Your task to perform on an android device: set the timer Image 0: 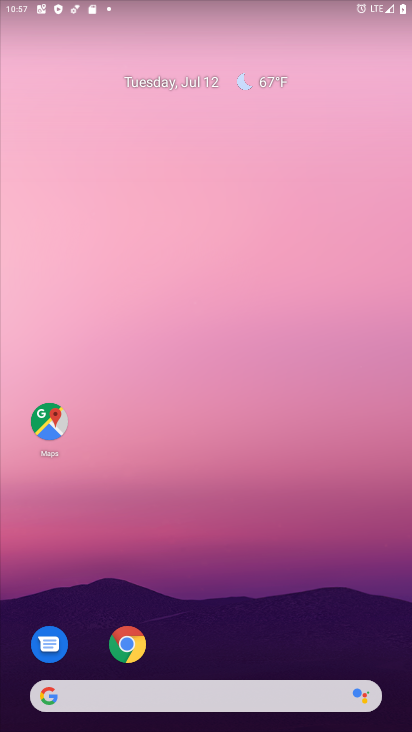
Step 0: drag from (221, 585) to (204, 235)
Your task to perform on an android device: set the timer Image 1: 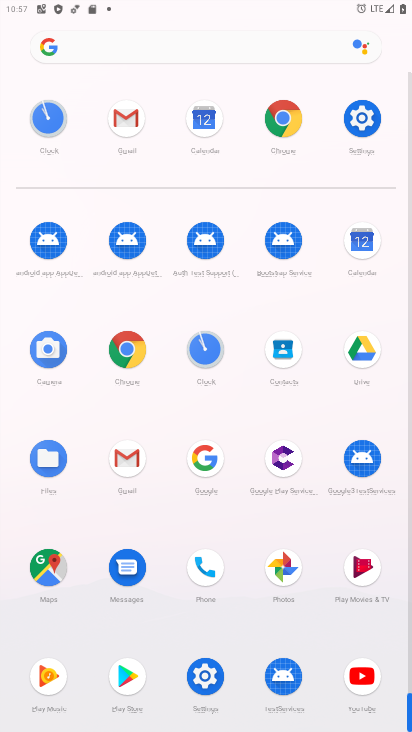
Step 1: click (208, 346)
Your task to perform on an android device: set the timer Image 2: 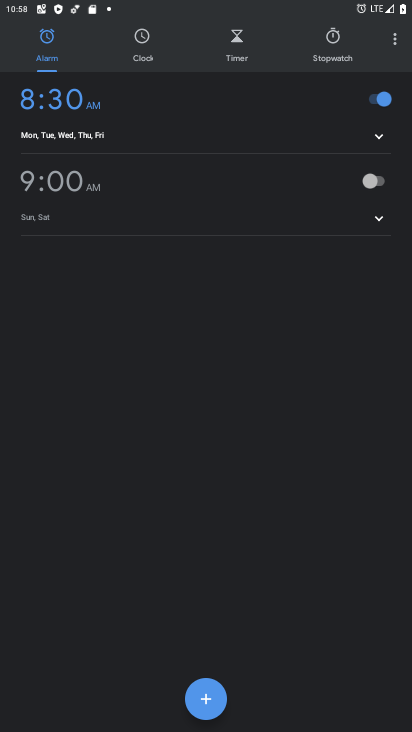
Step 2: press home button
Your task to perform on an android device: set the timer Image 3: 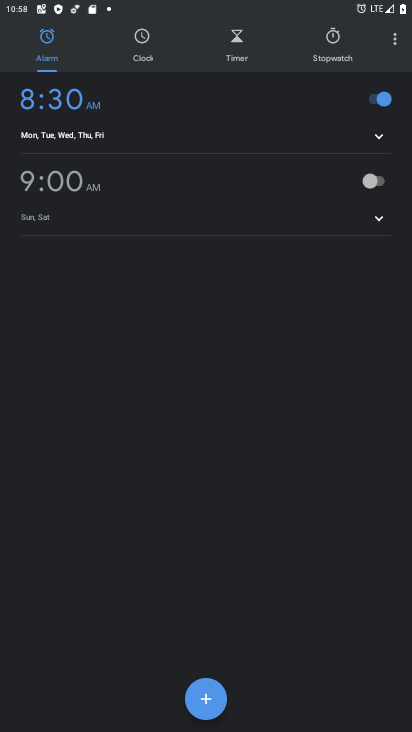
Step 3: drag from (207, 558) to (368, 41)
Your task to perform on an android device: set the timer Image 4: 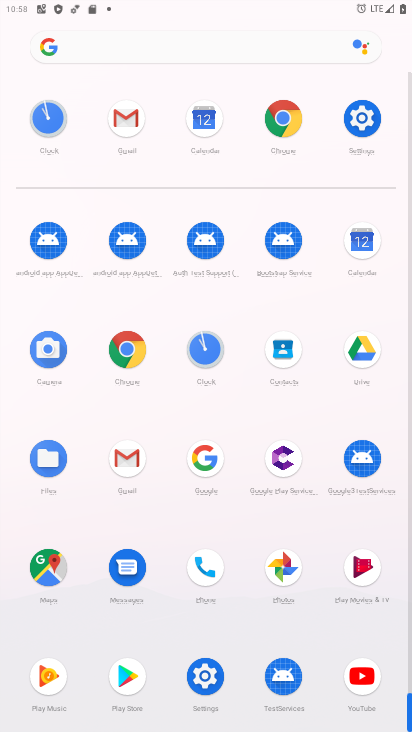
Step 4: click (203, 338)
Your task to perform on an android device: set the timer Image 5: 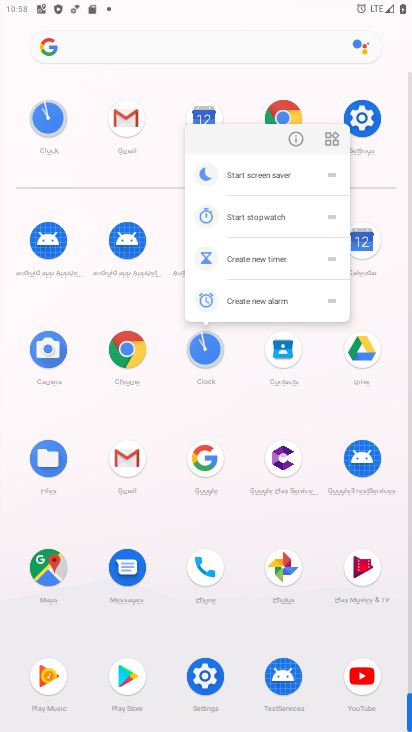
Step 5: click (290, 143)
Your task to perform on an android device: set the timer Image 6: 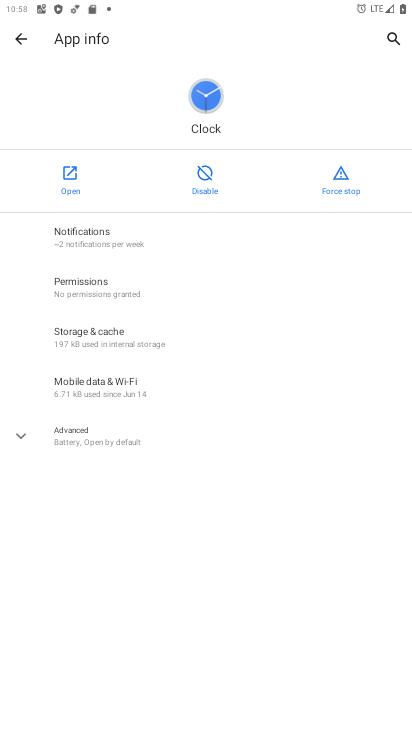
Step 6: click (74, 182)
Your task to perform on an android device: set the timer Image 7: 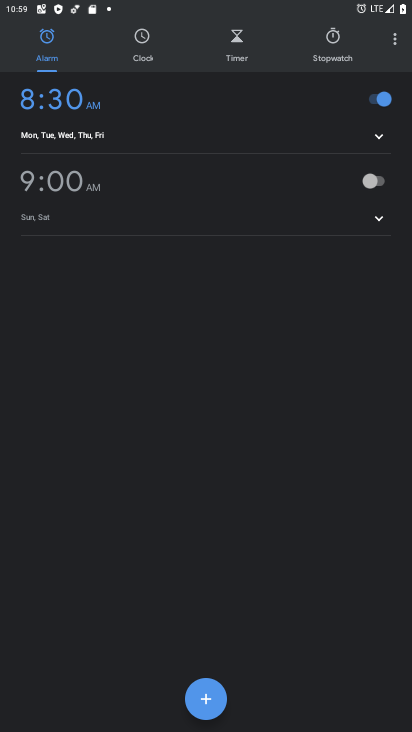
Step 7: drag from (200, 554) to (281, 276)
Your task to perform on an android device: set the timer Image 8: 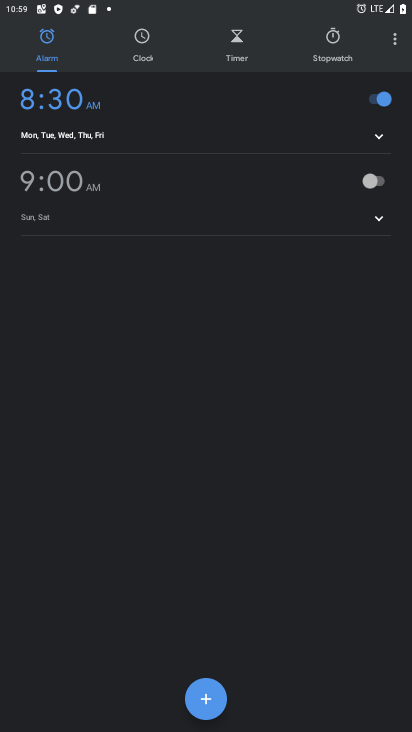
Step 8: click (249, 38)
Your task to perform on an android device: set the timer Image 9: 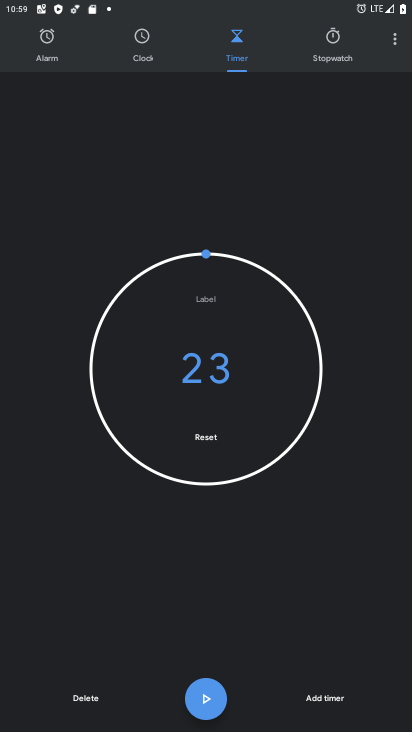
Step 9: click (198, 309)
Your task to perform on an android device: set the timer Image 10: 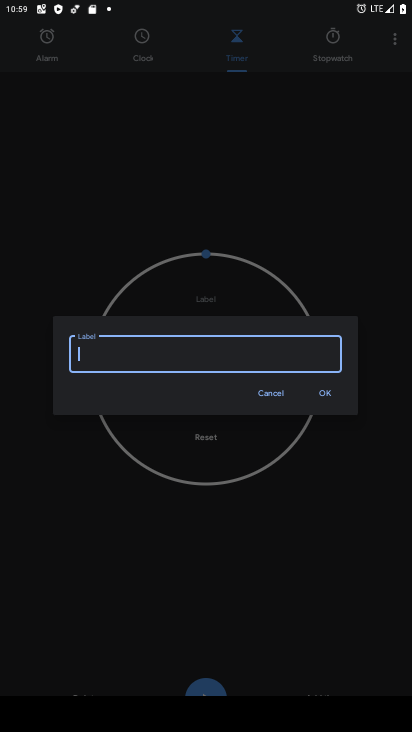
Step 10: drag from (187, 482) to (210, 380)
Your task to perform on an android device: set the timer Image 11: 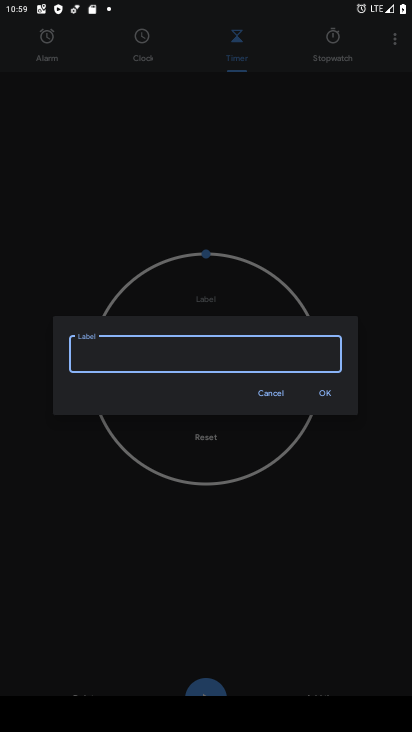
Step 11: click (186, 363)
Your task to perform on an android device: set the timer Image 12: 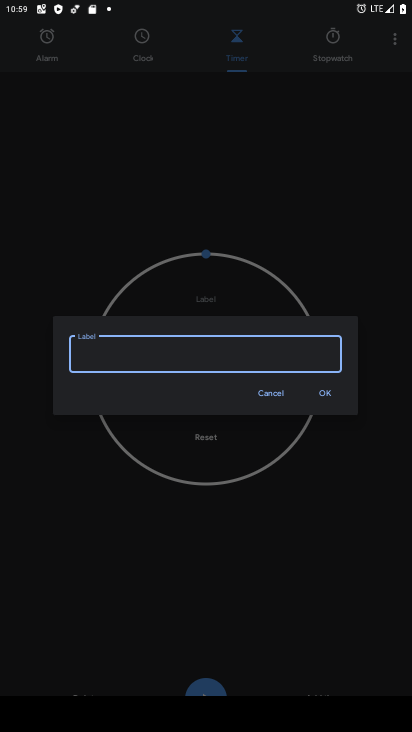
Step 12: click (276, 386)
Your task to perform on an android device: set the timer Image 13: 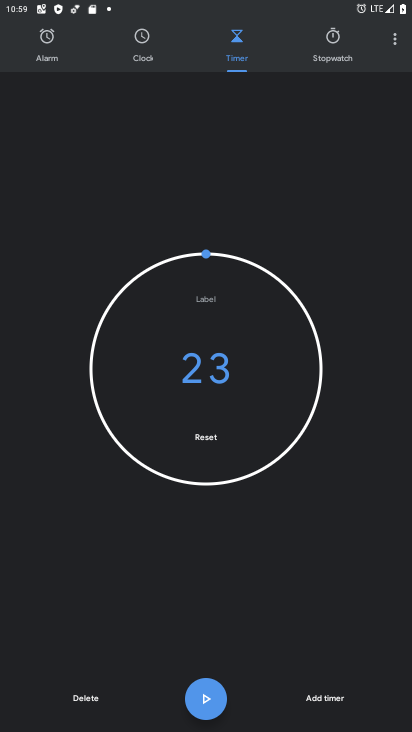
Step 13: click (208, 701)
Your task to perform on an android device: set the timer Image 14: 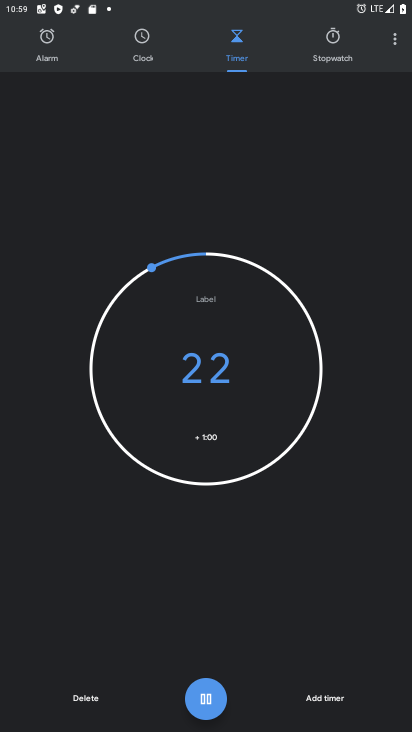
Step 14: task complete